Your task to perform on an android device: change the clock style Image 0: 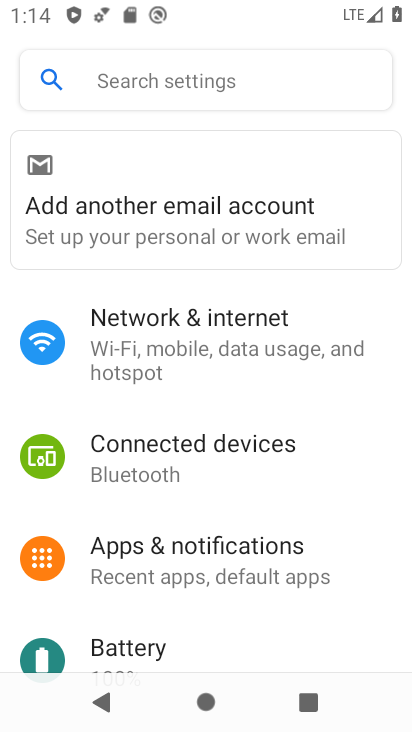
Step 0: press home button
Your task to perform on an android device: change the clock style Image 1: 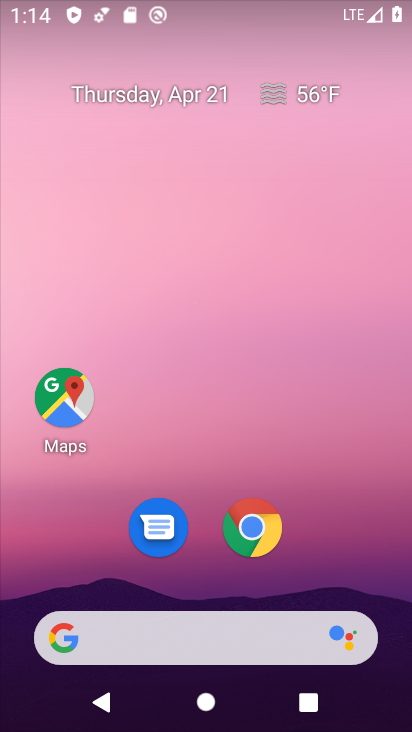
Step 1: drag from (186, 553) to (251, 150)
Your task to perform on an android device: change the clock style Image 2: 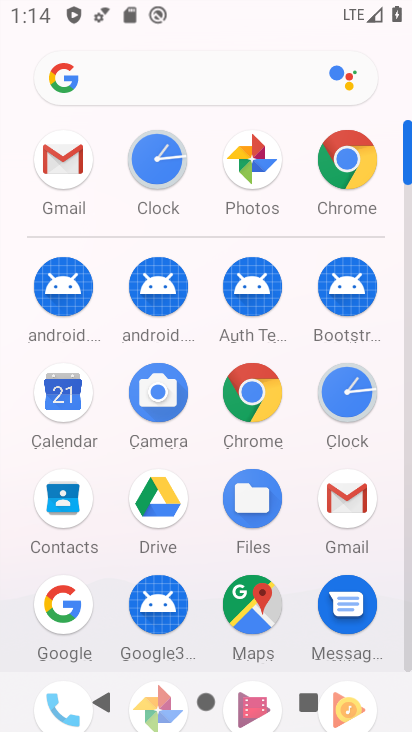
Step 2: click (345, 392)
Your task to perform on an android device: change the clock style Image 3: 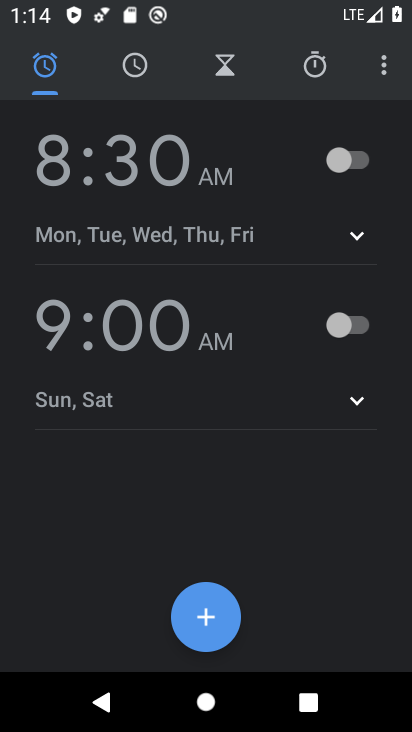
Step 3: click (385, 65)
Your task to perform on an android device: change the clock style Image 4: 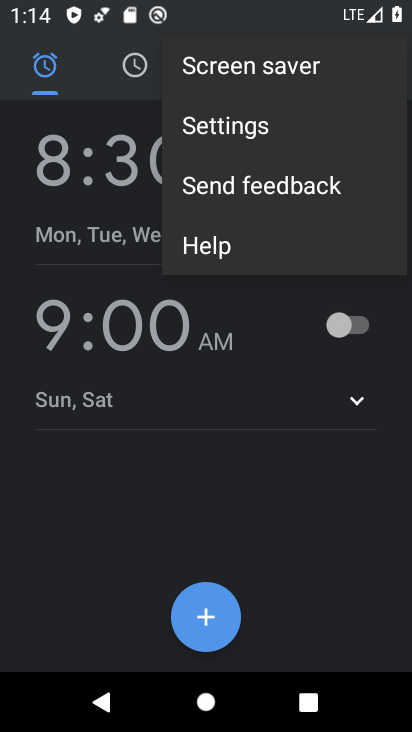
Step 4: click (274, 124)
Your task to perform on an android device: change the clock style Image 5: 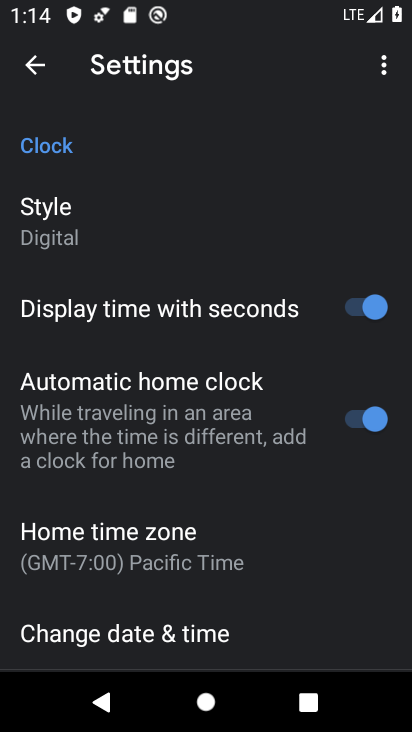
Step 5: click (56, 224)
Your task to perform on an android device: change the clock style Image 6: 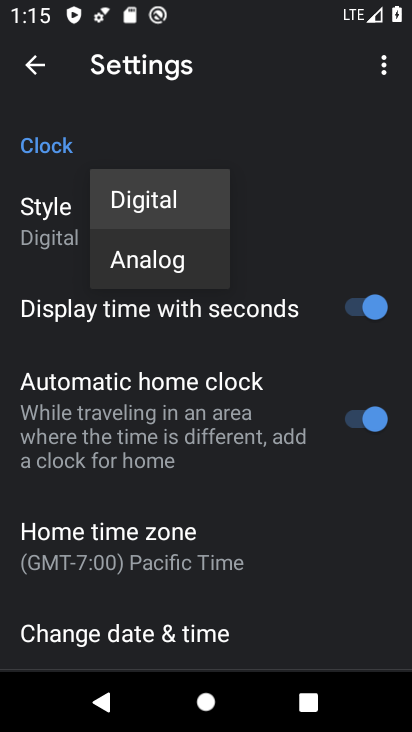
Step 6: click (146, 258)
Your task to perform on an android device: change the clock style Image 7: 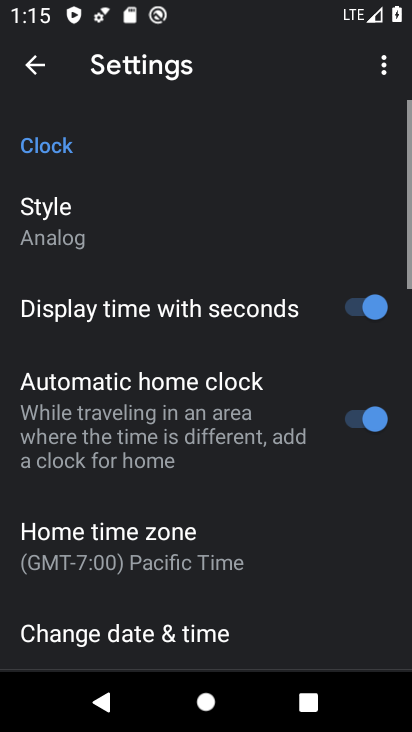
Step 7: task complete